Your task to perform on an android device: toggle improve location accuracy Image 0: 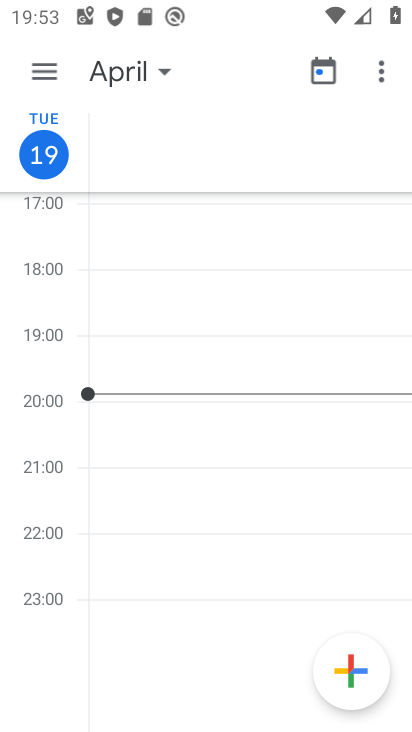
Step 0: press home button
Your task to perform on an android device: toggle improve location accuracy Image 1: 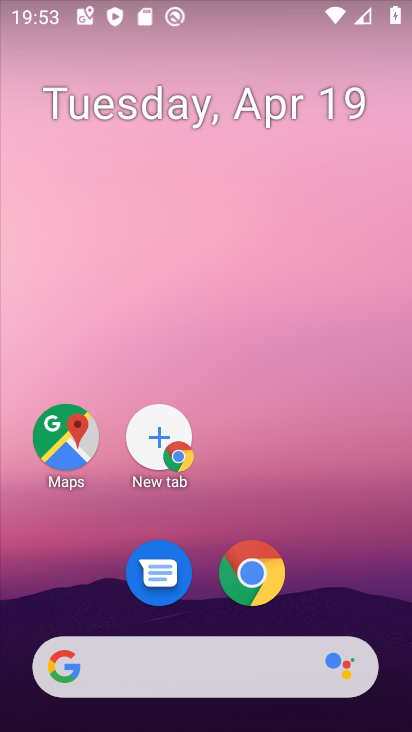
Step 1: drag from (348, 131) to (343, 79)
Your task to perform on an android device: toggle improve location accuracy Image 2: 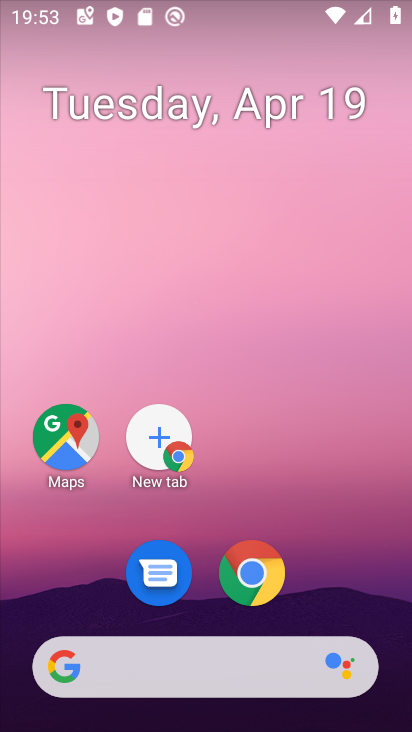
Step 2: drag from (282, 184) to (261, 75)
Your task to perform on an android device: toggle improve location accuracy Image 3: 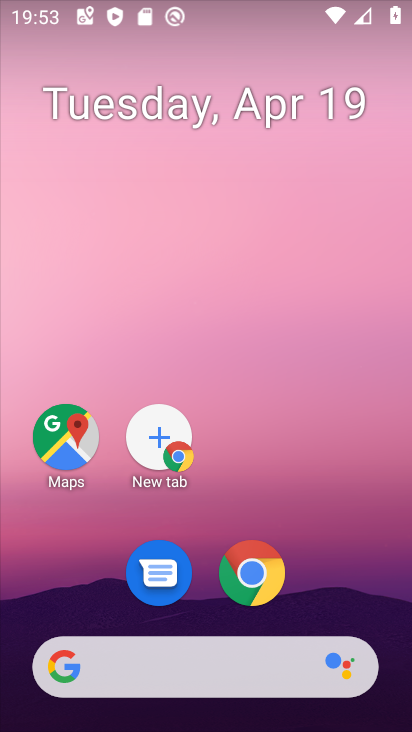
Step 3: drag from (359, 420) to (329, 20)
Your task to perform on an android device: toggle improve location accuracy Image 4: 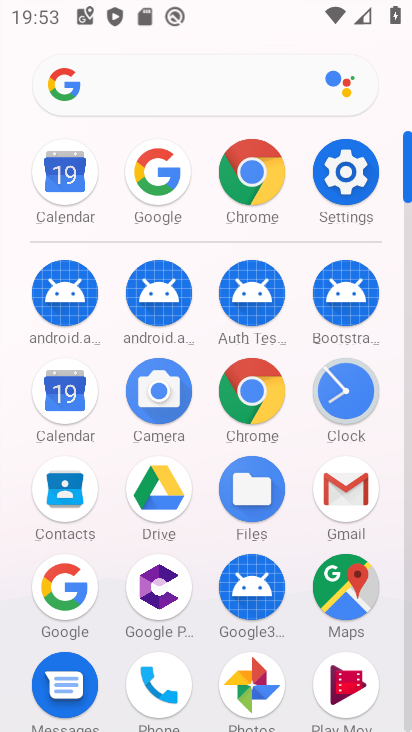
Step 4: click (351, 163)
Your task to perform on an android device: toggle improve location accuracy Image 5: 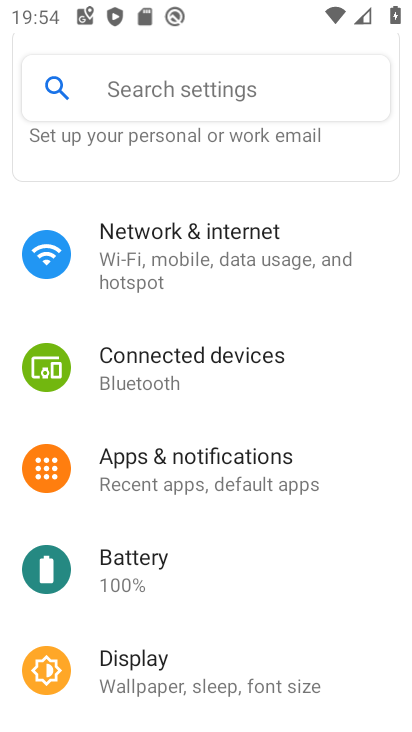
Step 5: drag from (367, 304) to (358, 16)
Your task to perform on an android device: toggle improve location accuracy Image 6: 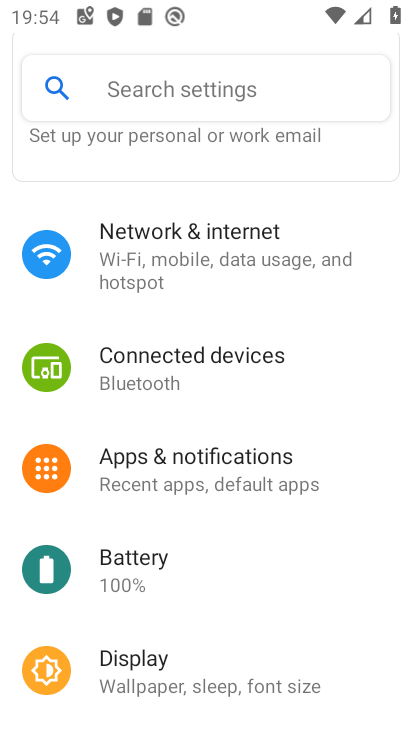
Step 6: drag from (378, 544) to (370, 227)
Your task to perform on an android device: toggle improve location accuracy Image 7: 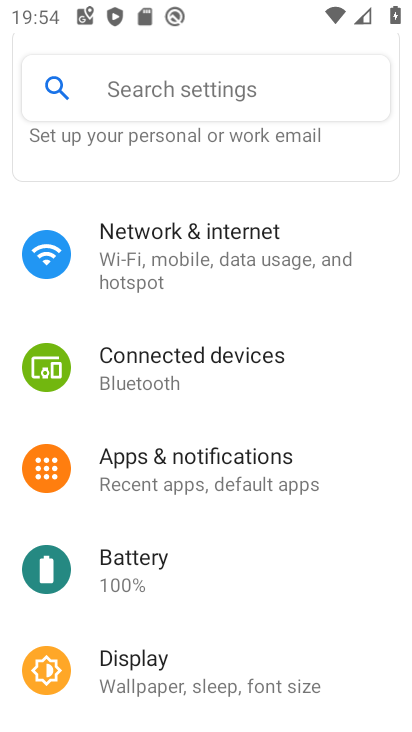
Step 7: drag from (390, 707) to (407, 227)
Your task to perform on an android device: toggle improve location accuracy Image 8: 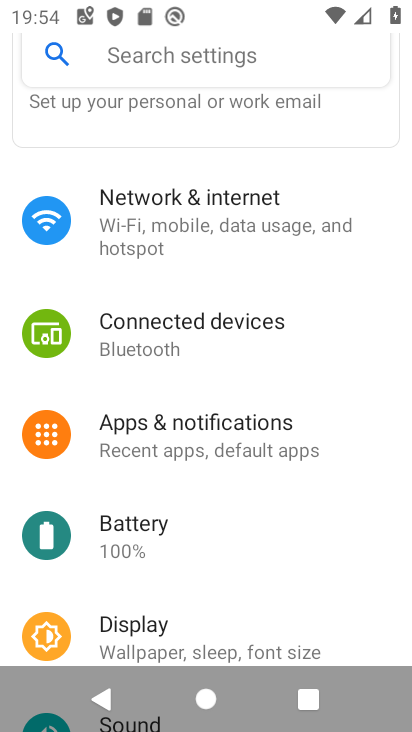
Step 8: drag from (370, 629) to (354, 271)
Your task to perform on an android device: toggle improve location accuracy Image 9: 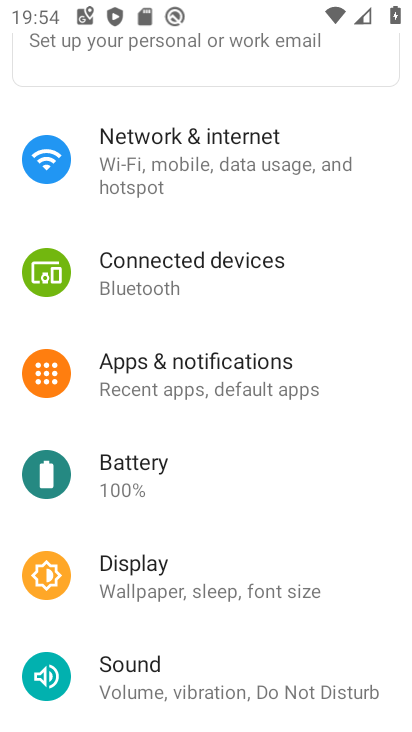
Step 9: drag from (383, 521) to (375, 170)
Your task to perform on an android device: toggle improve location accuracy Image 10: 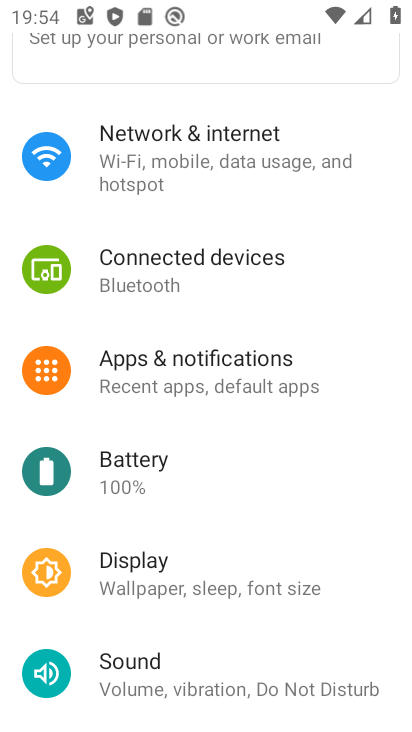
Step 10: drag from (374, 605) to (367, 219)
Your task to perform on an android device: toggle improve location accuracy Image 11: 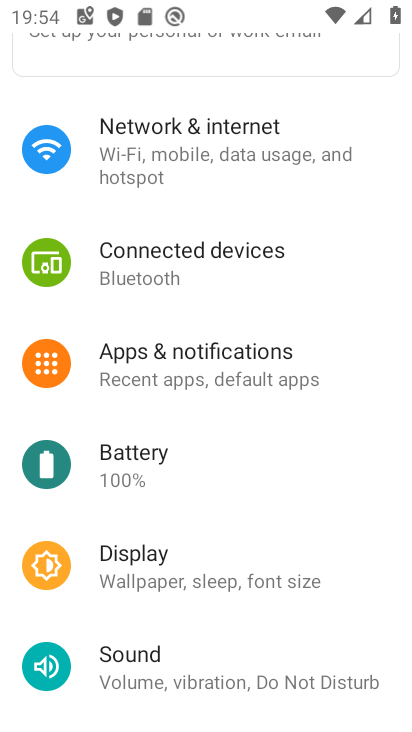
Step 11: drag from (372, 618) to (364, 125)
Your task to perform on an android device: toggle improve location accuracy Image 12: 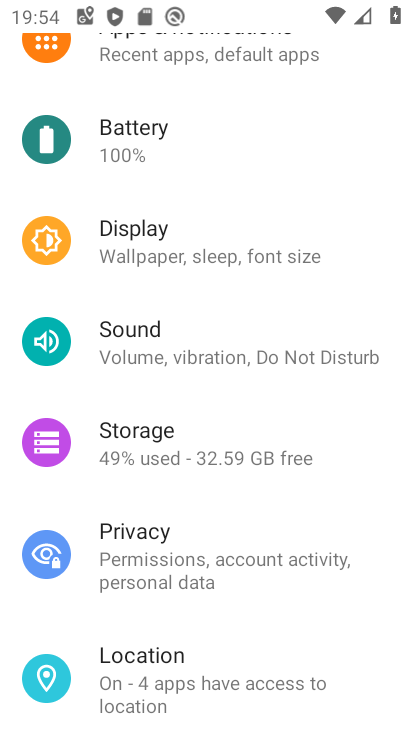
Step 12: click (119, 671)
Your task to perform on an android device: toggle improve location accuracy Image 13: 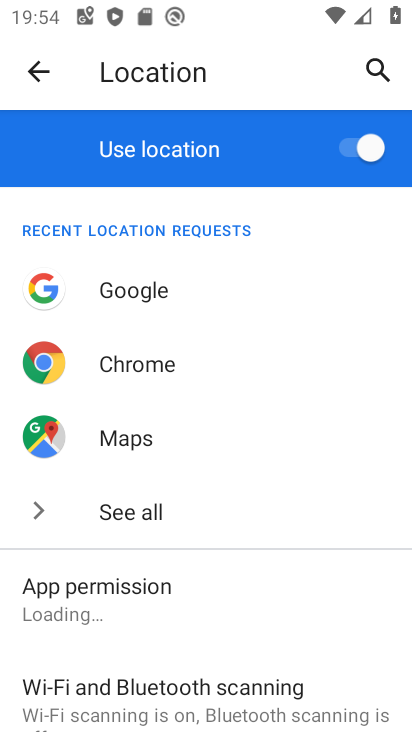
Step 13: drag from (365, 560) to (359, 301)
Your task to perform on an android device: toggle improve location accuracy Image 14: 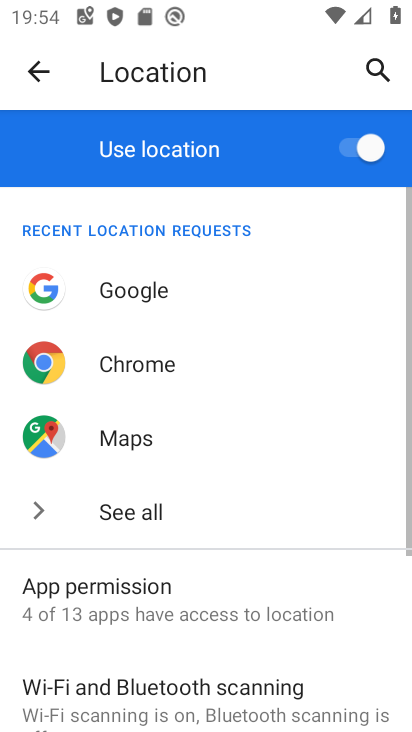
Step 14: drag from (345, 647) to (355, 215)
Your task to perform on an android device: toggle improve location accuracy Image 15: 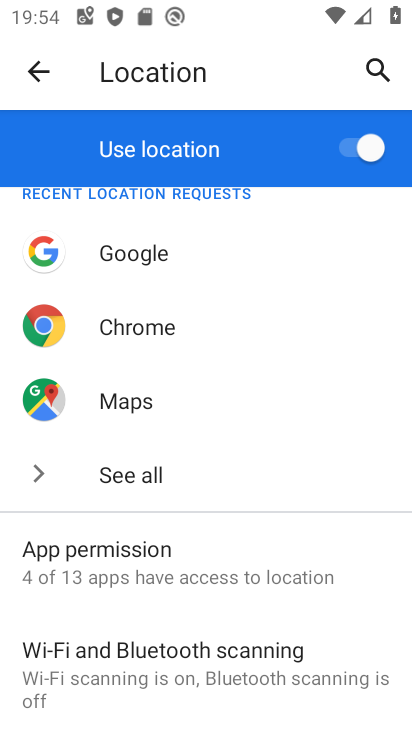
Step 15: drag from (347, 568) to (361, 263)
Your task to perform on an android device: toggle improve location accuracy Image 16: 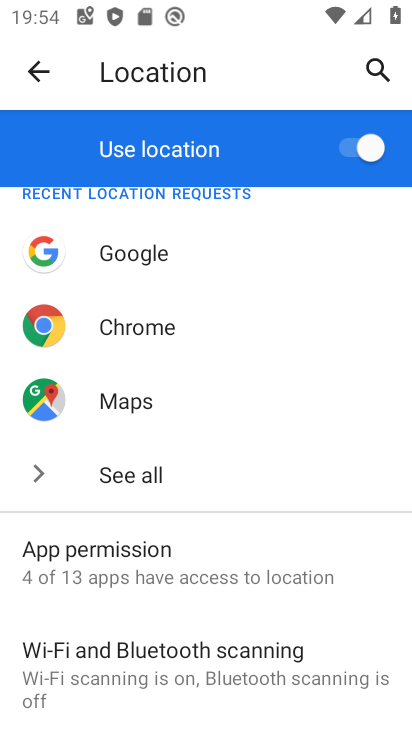
Step 16: drag from (360, 589) to (337, 182)
Your task to perform on an android device: toggle improve location accuracy Image 17: 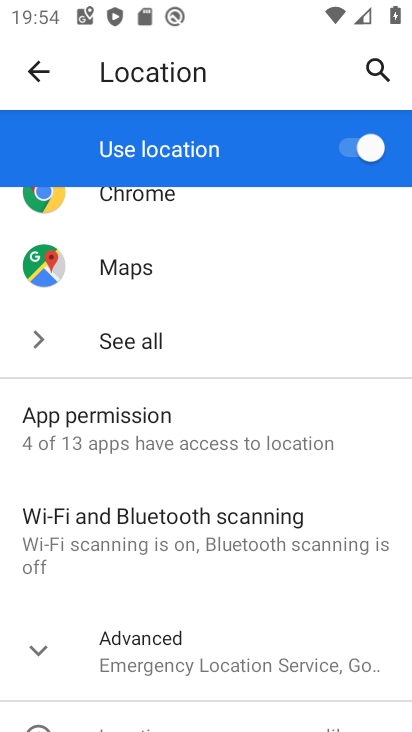
Step 17: click (122, 647)
Your task to perform on an android device: toggle improve location accuracy Image 18: 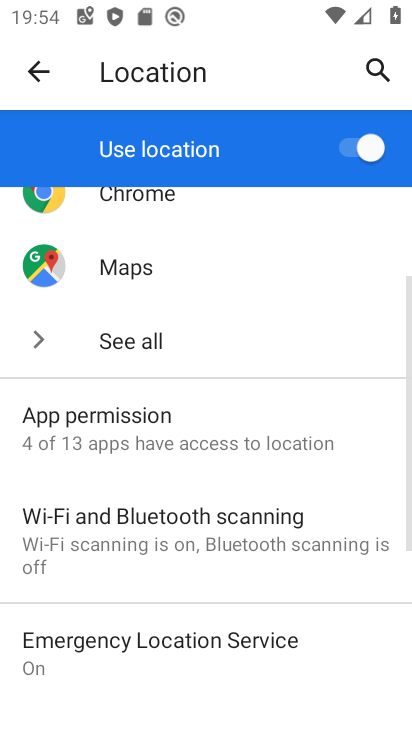
Step 18: drag from (333, 672) to (341, 380)
Your task to perform on an android device: toggle improve location accuracy Image 19: 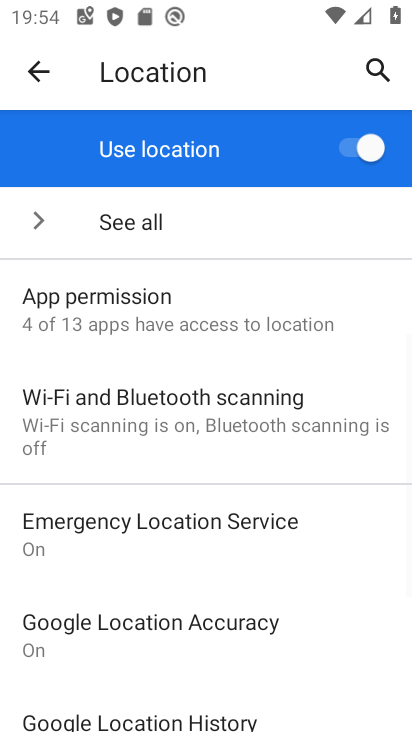
Step 19: drag from (334, 695) to (320, 319)
Your task to perform on an android device: toggle improve location accuracy Image 20: 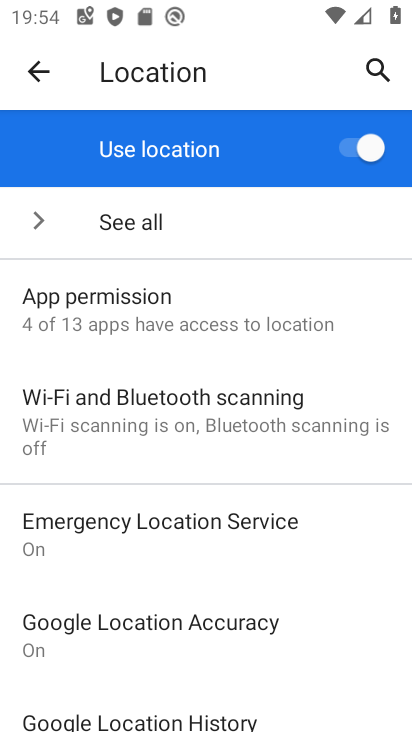
Step 20: drag from (341, 418) to (334, 215)
Your task to perform on an android device: toggle improve location accuracy Image 21: 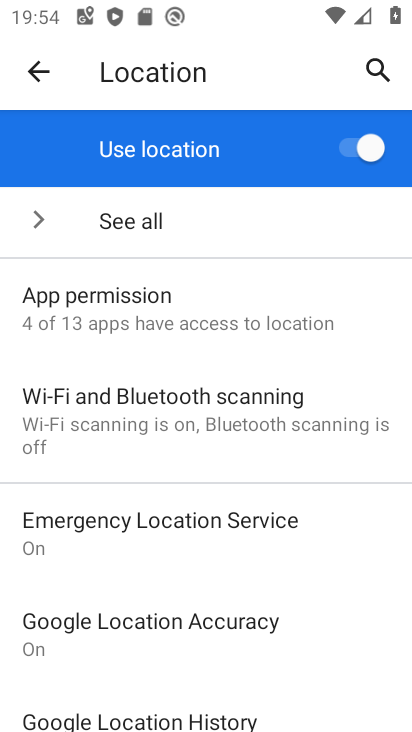
Step 21: click (68, 622)
Your task to perform on an android device: toggle improve location accuracy Image 22: 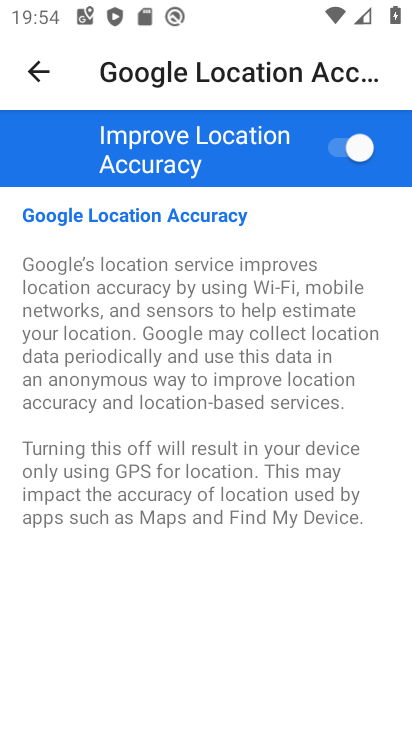
Step 22: click (324, 144)
Your task to perform on an android device: toggle improve location accuracy Image 23: 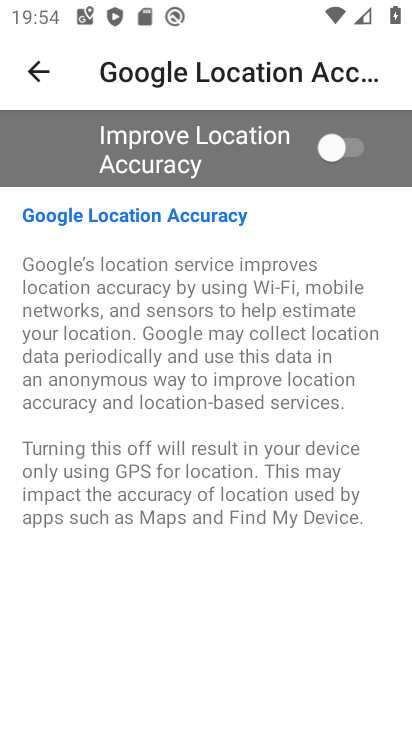
Step 23: task complete